Your task to perform on an android device: Do I have any events today? Image 0: 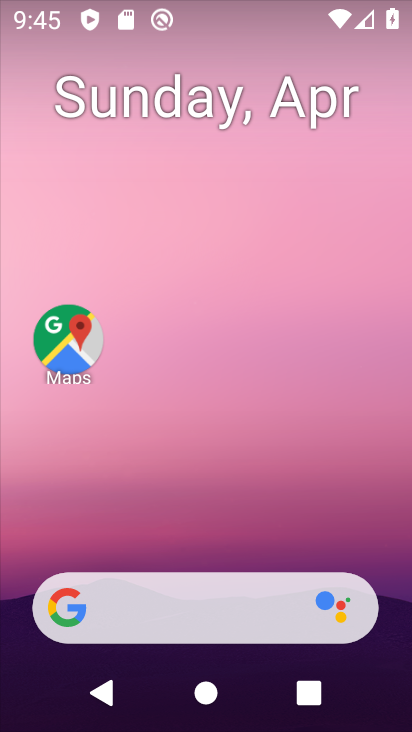
Step 0: drag from (227, 678) to (230, 193)
Your task to perform on an android device: Do I have any events today? Image 1: 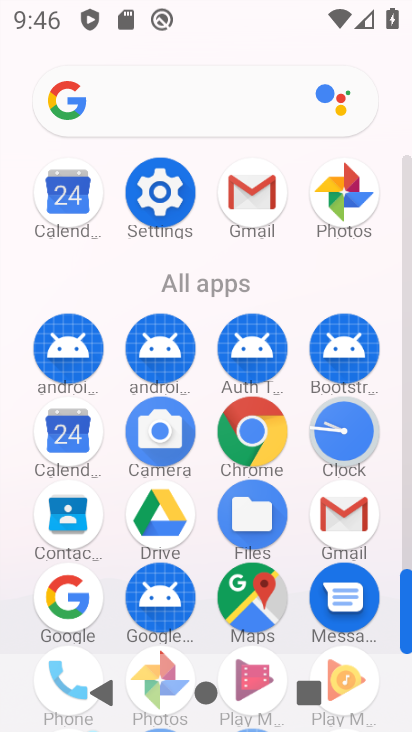
Step 1: click (70, 426)
Your task to perform on an android device: Do I have any events today? Image 2: 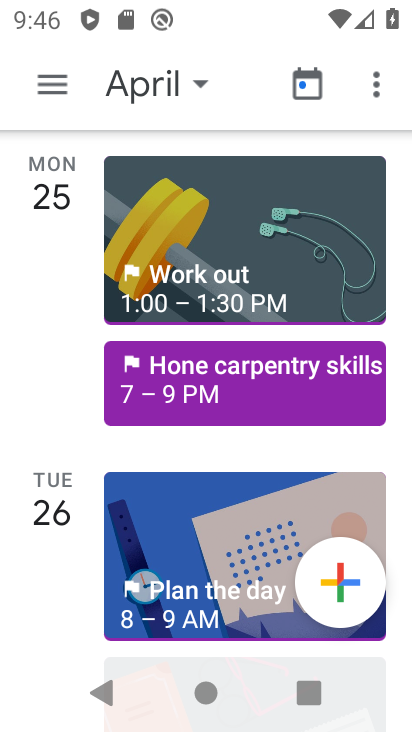
Step 2: click (154, 86)
Your task to perform on an android device: Do I have any events today? Image 3: 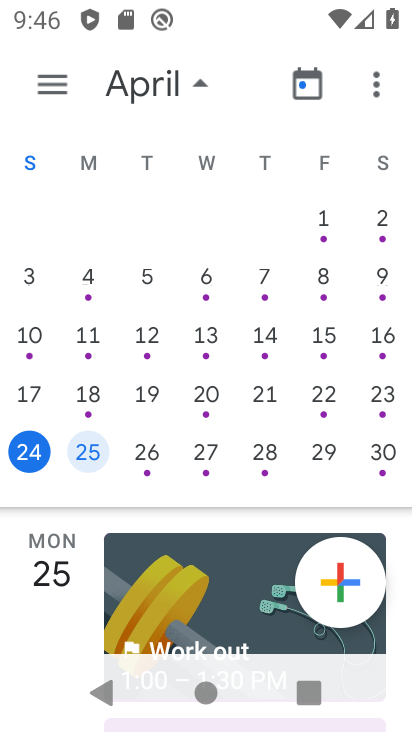
Step 3: click (32, 455)
Your task to perform on an android device: Do I have any events today? Image 4: 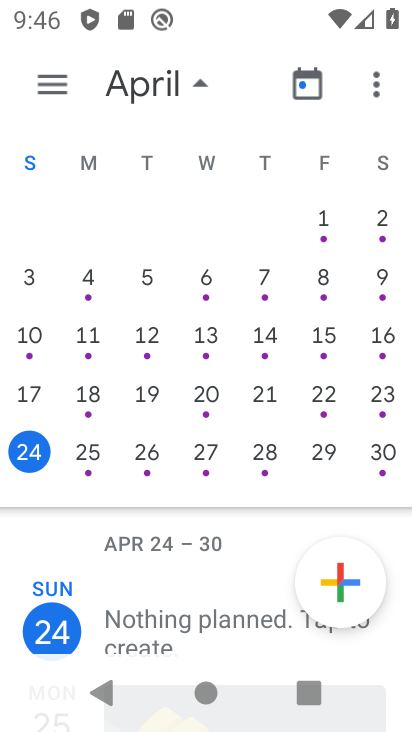
Step 4: task complete